Your task to perform on an android device: Go to Yahoo.com Image 0: 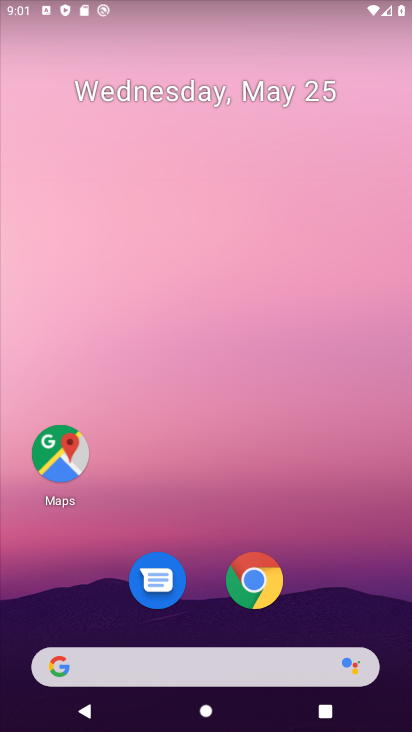
Step 0: click (262, 572)
Your task to perform on an android device: Go to Yahoo.com Image 1: 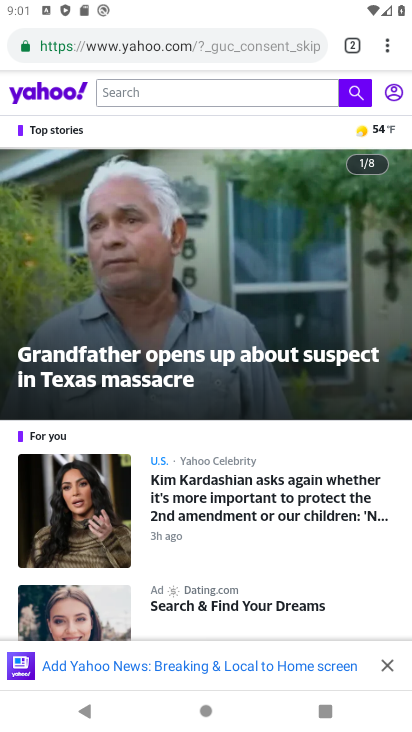
Step 1: task complete